Your task to perform on an android device: set the timer Image 0: 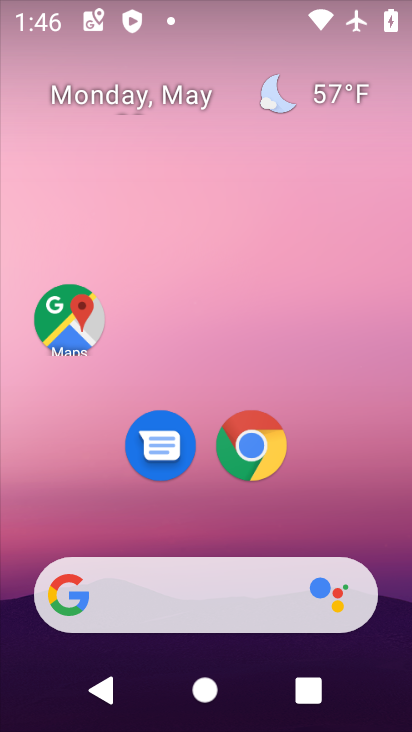
Step 0: drag from (215, 517) to (222, 76)
Your task to perform on an android device: set the timer Image 1: 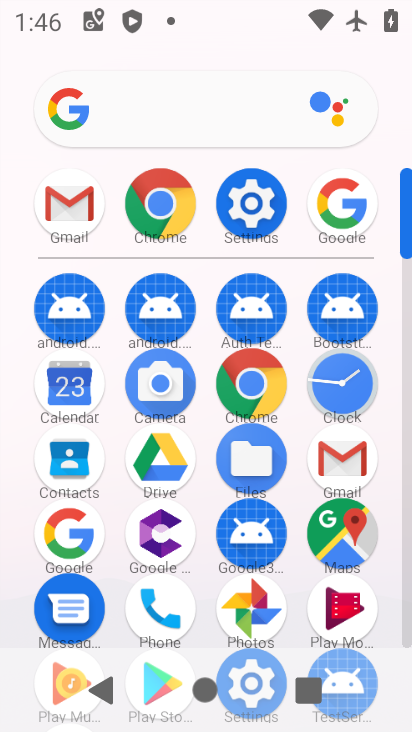
Step 1: click (330, 389)
Your task to perform on an android device: set the timer Image 2: 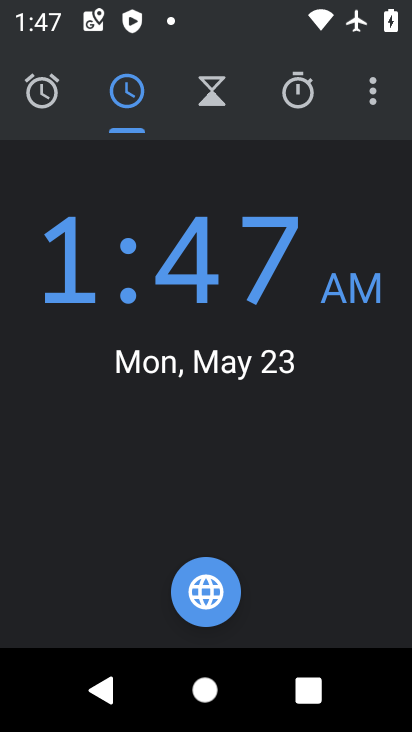
Step 2: click (213, 101)
Your task to perform on an android device: set the timer Image 3: 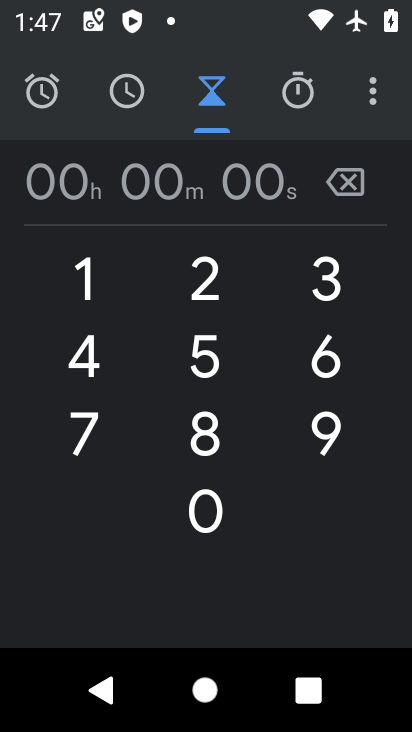
Step 3: click (211, 341)
Your task to perform on an android device: set the timer Image 4: 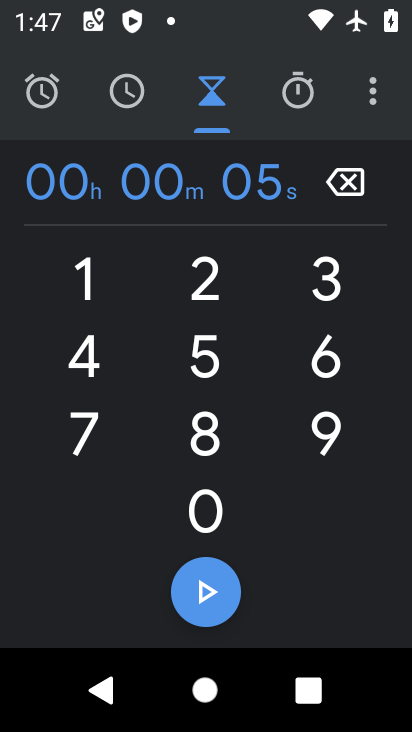
Step 4: click (211, 341)
Your task to perform on an android device: set the timer Image 5: 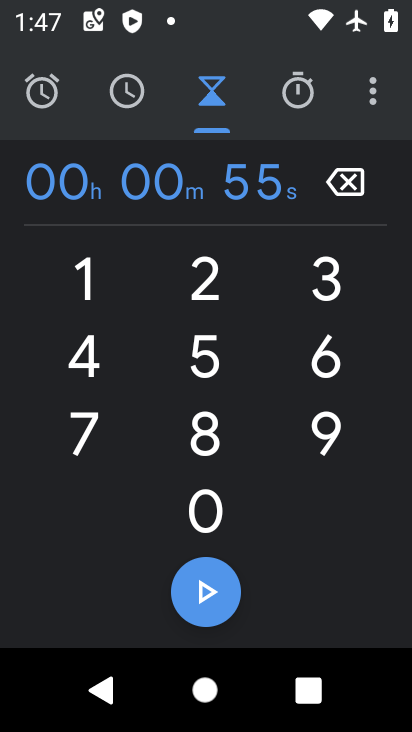
Step 5: task complete